Your task to perform on an android device: Go to eBay Image 0: 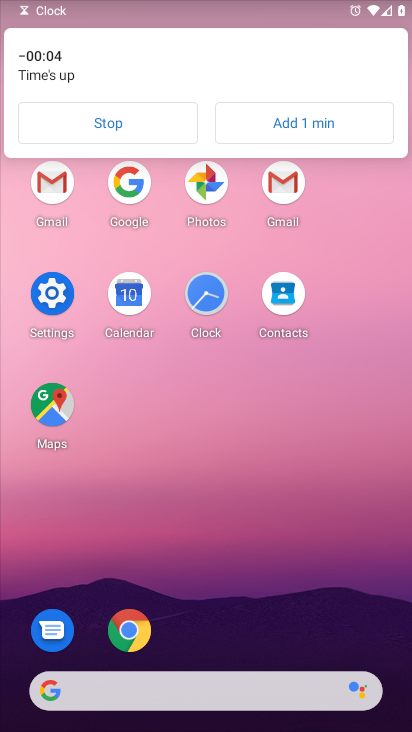
Step 0: click (134, 627)
Your task to perform on an android device: Go to eBay Image 1: 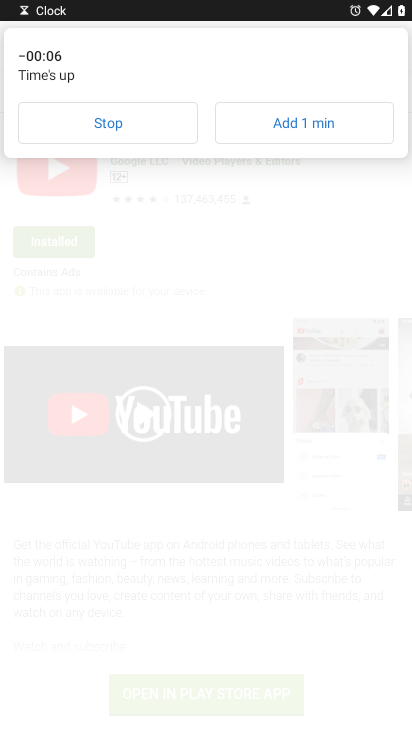
Step 1: click (120, 133)
Your task to perform on an android device: Go to eBay Image 2: 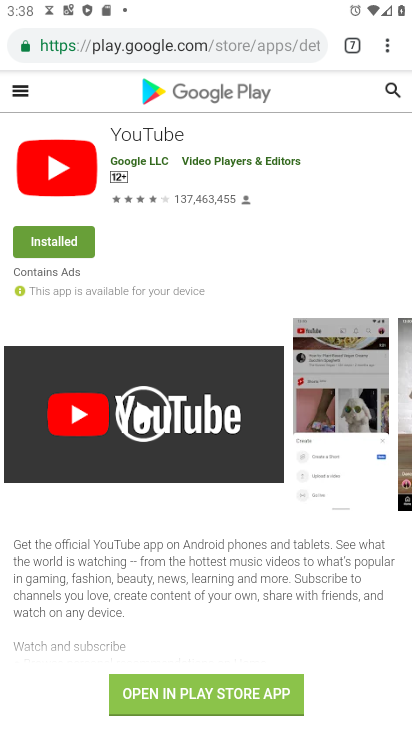
Step 2: press back button
Your task to perform on an android device: Go to eBay Image 3: 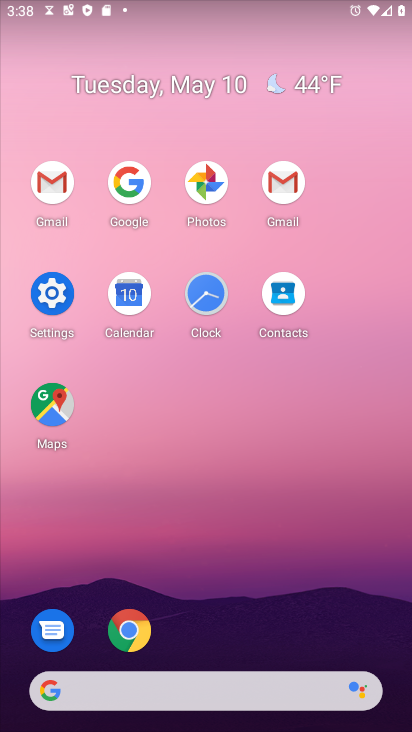
Step 3: click (130, 623)
Your task to perform on an android device: Go to eBay Image 4: 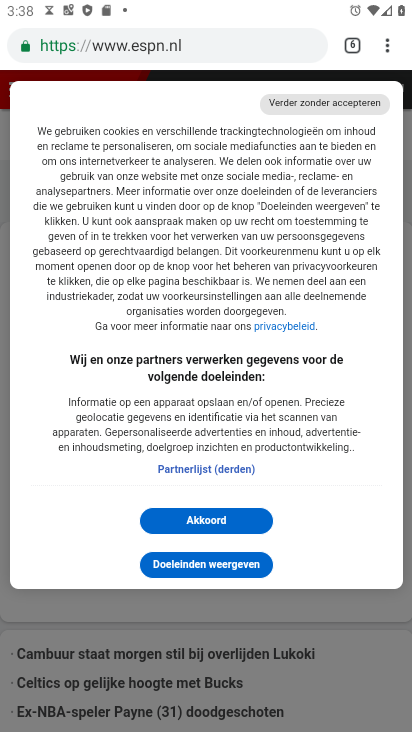
Step 4: click (356, 50)
Your task to perform on an android device: Go to eBay Image 5: 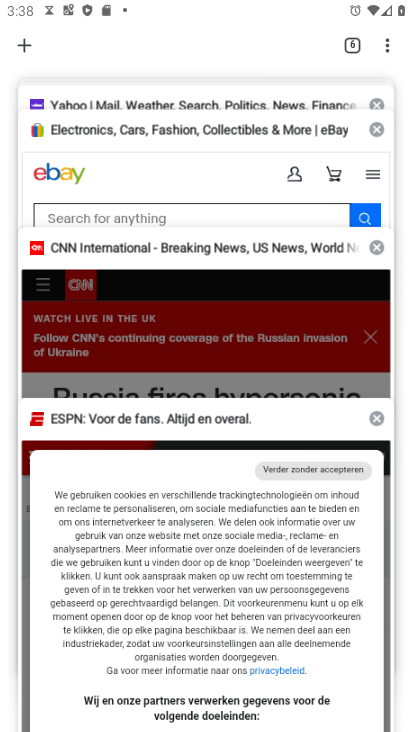
Step 5: click (176, 157)
Your task to perform on an android device: Go to eBay Image 6: 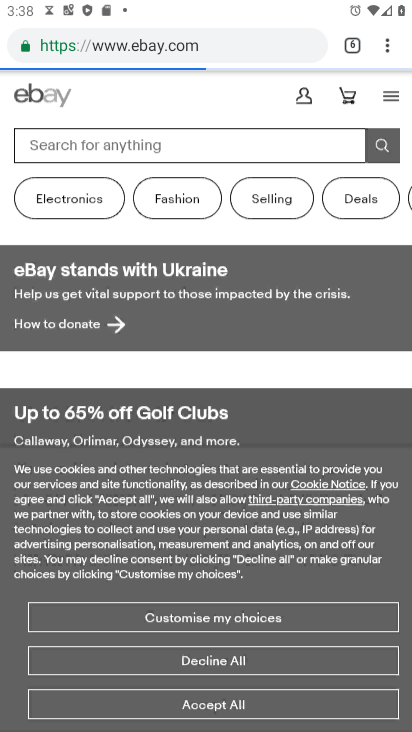
Step 6: task complete